Your task to perform on an android device: What is the news today? Image 0: 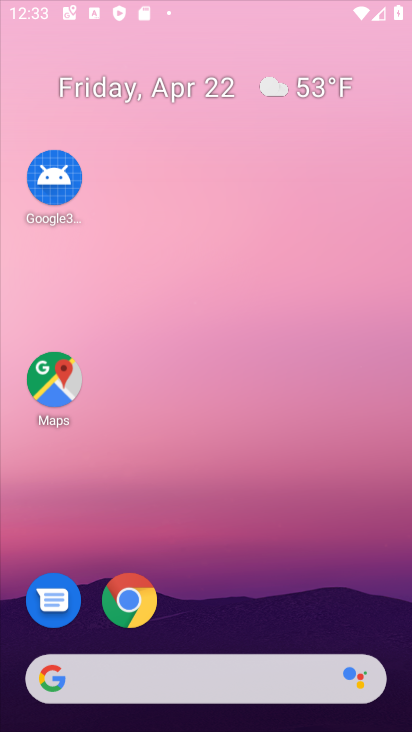
Step 0: drag from (223, 560) to (198, 114)
Your task to perform on an android device: What is the news today? Image 1: 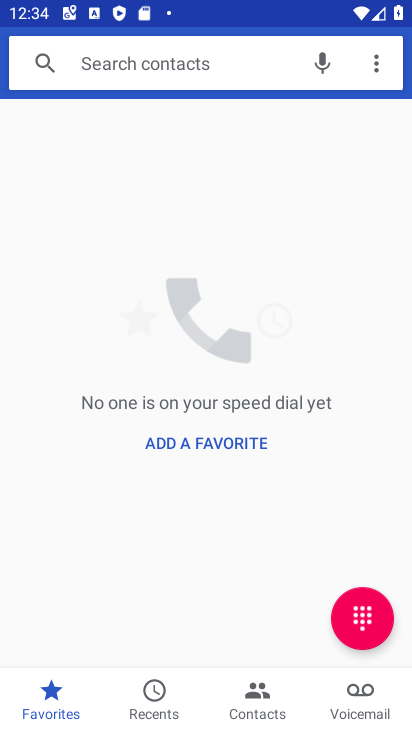
Step 1: press home button
Your task to perform on an android device: What is the news today? Image 2: 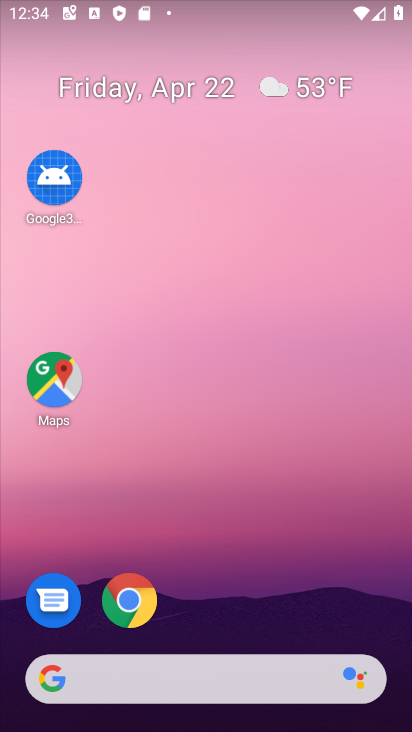
Step 2: drag from (251, 579) to (205, 13)
Your task to perform on an android device: What is the news today? Image 3: 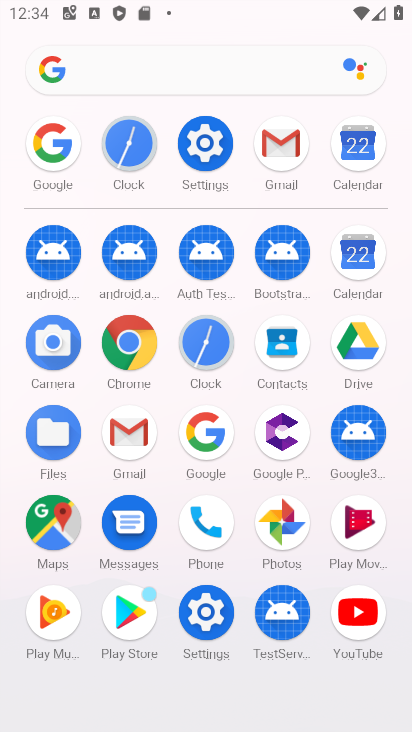
Step 3: click (202, 438)
Your task to perform on an android device: What is the news today? Image 4: 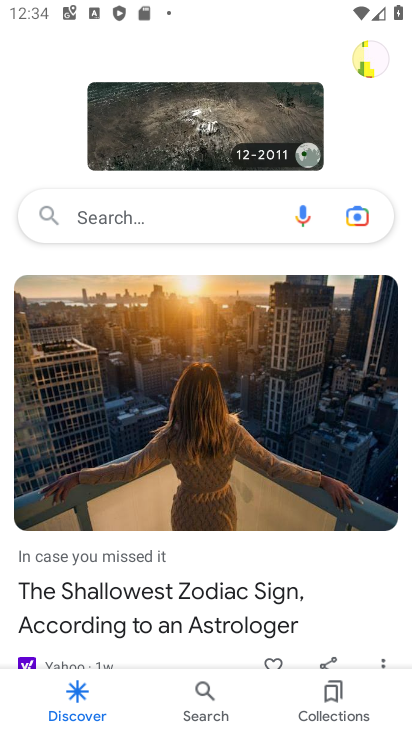
Step 4: task complete